Your task to perform on an android device: visit the assistant section in the google photos Image 0: 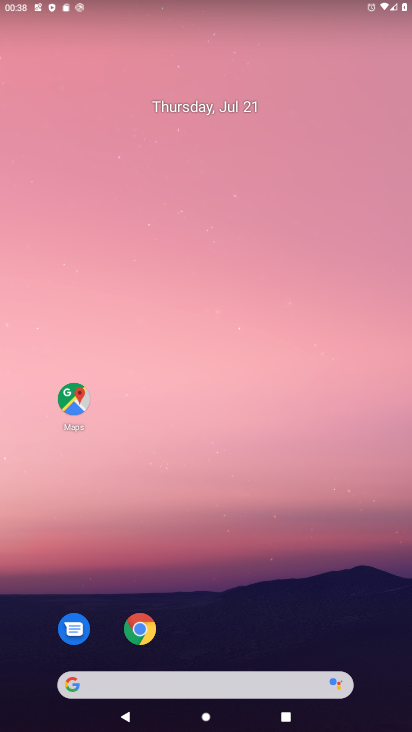
Step 0: drag from (237, 585) to (212, 73)
Your task to perform on an android device: visit the assistant section in the google photos Image 1: 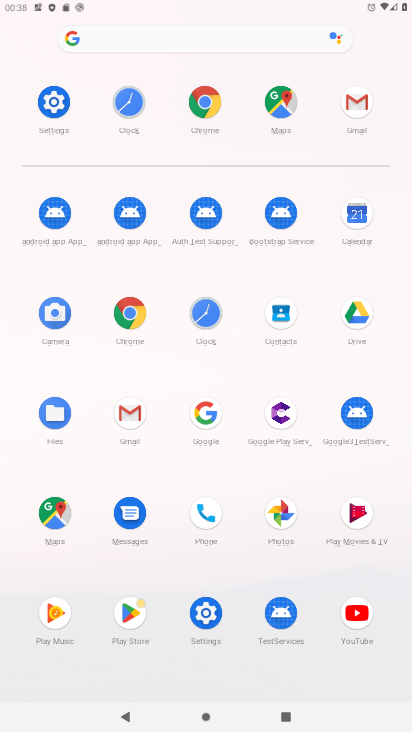
Step 1: click (281, 505)
Your task to perform on an android device: visit the assistant section in the google photos Image 2: 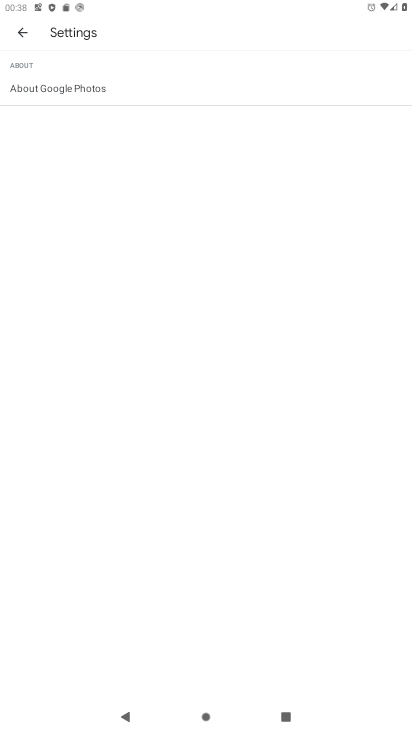
Step 2: click (22, 31)
Your task to perform on an android device: visit the assistant section in the google photos Image 3: 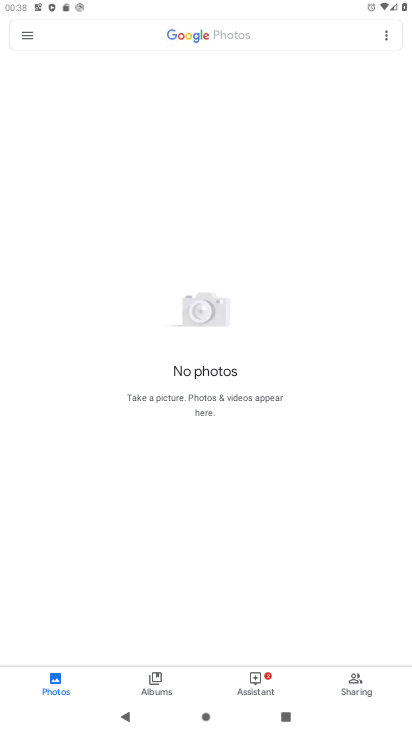
Step 3: click (254, 687)
Your task to perform on an android device: visit the assistant section in the google photos Image 4: 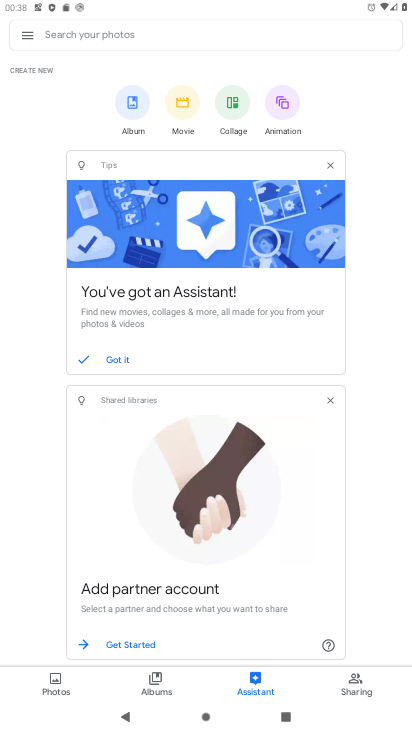
Step 4: task complete